Your task to perform on an android device: turn on priority inbox in the gmail app Image 0: 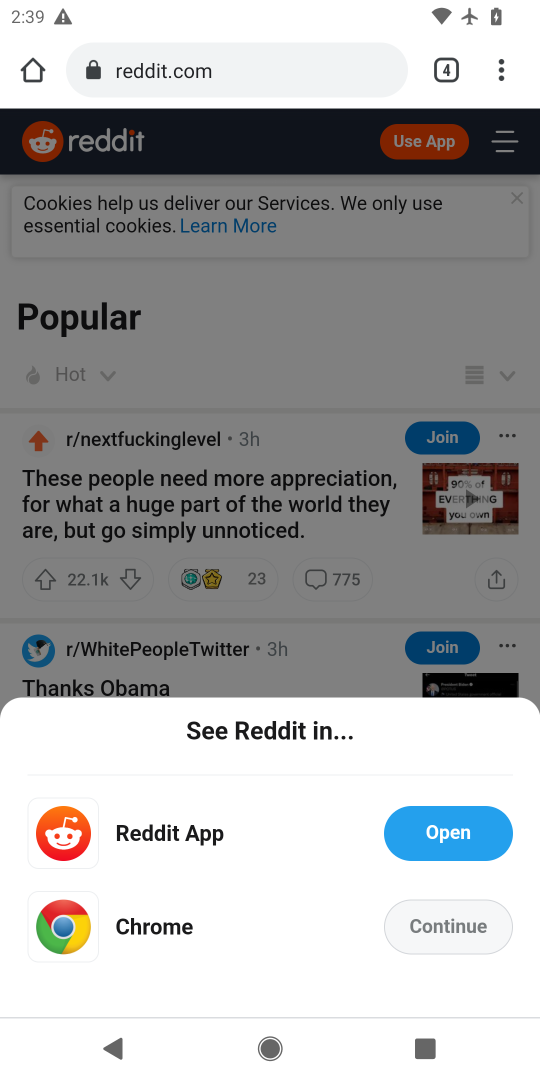
Step 0: press home button
Your task to perform on an android device: turn on priority inbox in the gmail app Image 1: 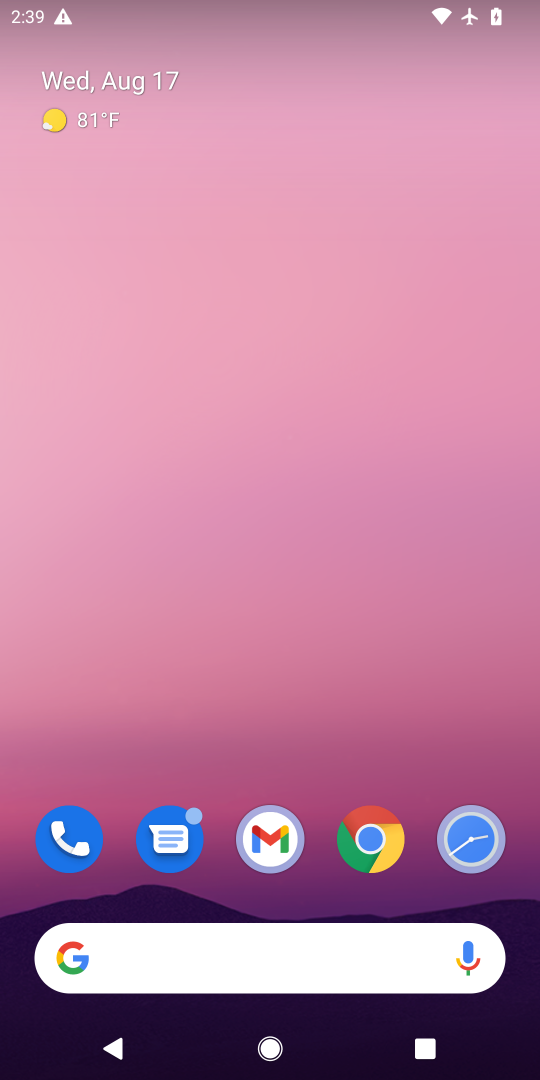
Step 1: drag from (323, 902) to (366, 67)
Your task to perform on an android device: turn on priority inbox in the gmail app Image 2: 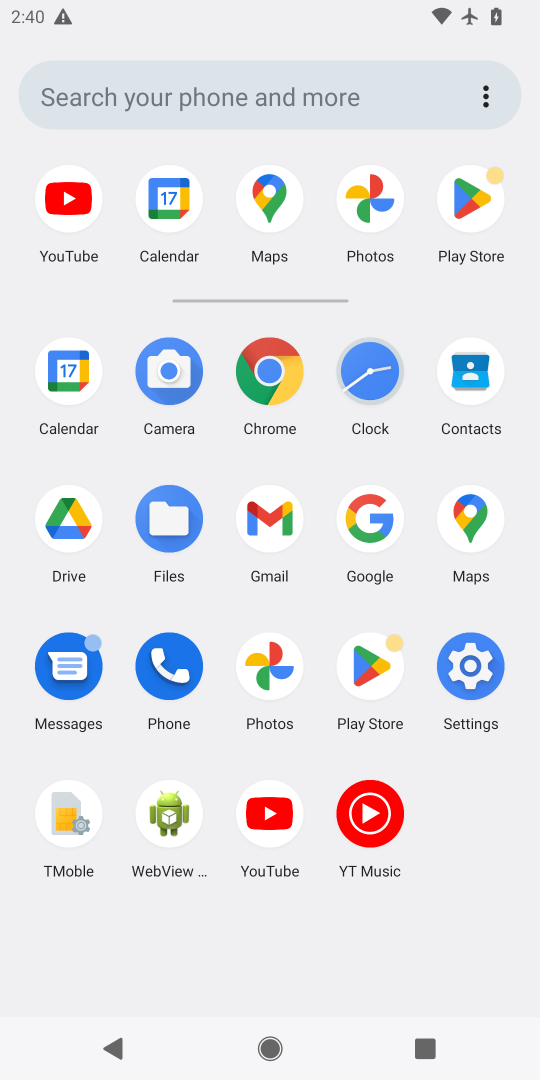
Step 2: click (267, 512)
Your task to perform on an android device: turn on priority inbox in the gmail app Image 3: 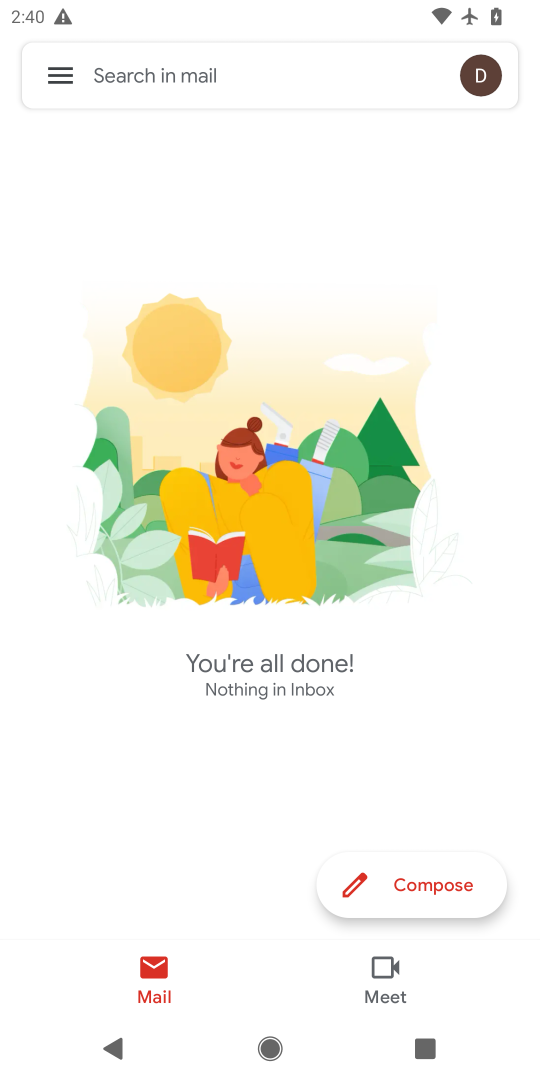
Step 3: click (59, 66)
Your task to perform on an android device: turn on priority inbox in the gmail app Image 4: 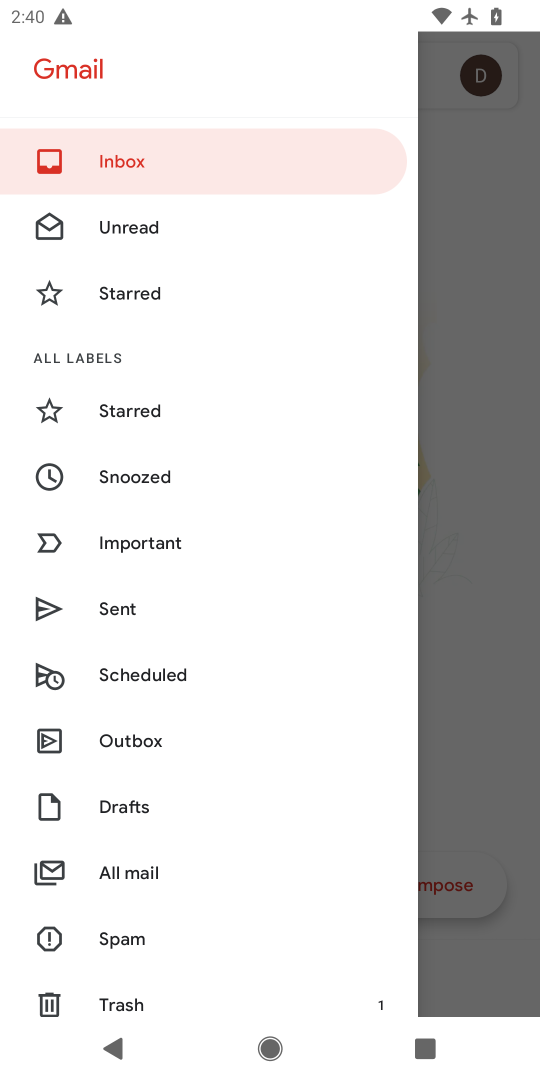
Step 4: drag from (120, 935) to (134, 313)
Your task to perform on an android device: turn on priority inbox in the gmail app Image 5: 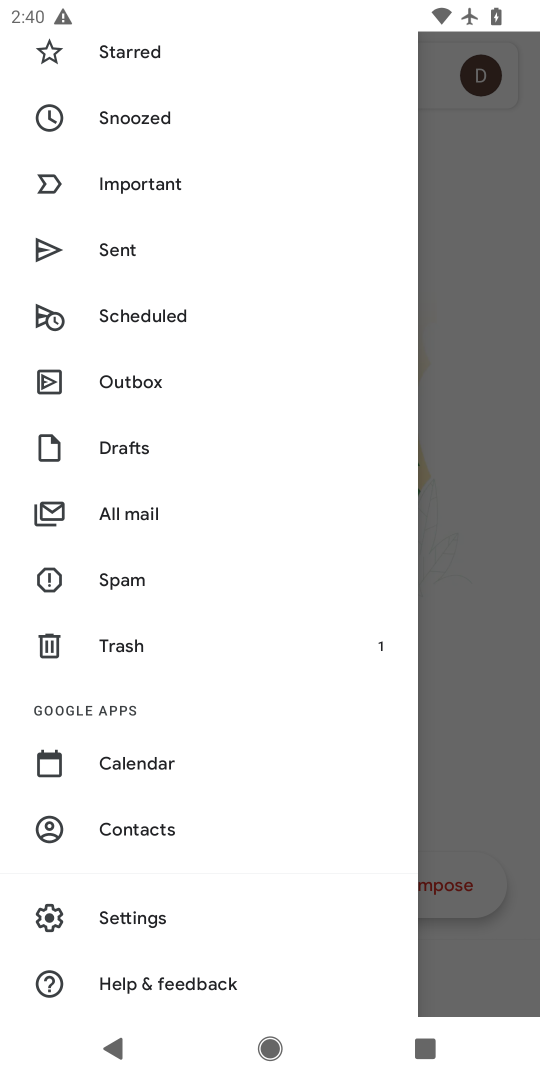
Step 5: click (145, 918)
Your task to perform on an android device: turn on priority inbox in the gmail app Image 6: 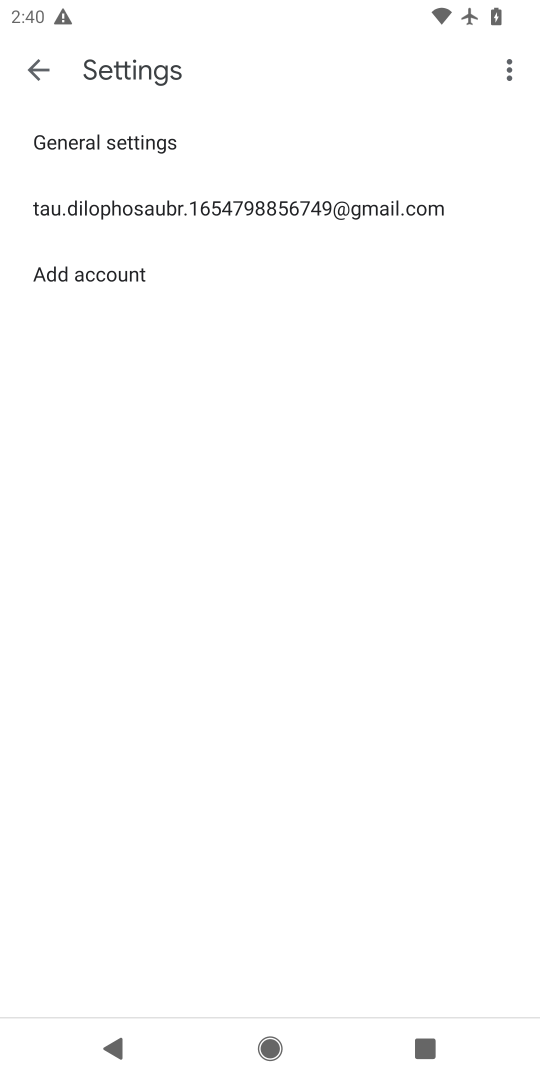
Step 6: click (151, 207)
Your task to perform on an android device: turn on priority inbox in the gmail app Image 7: 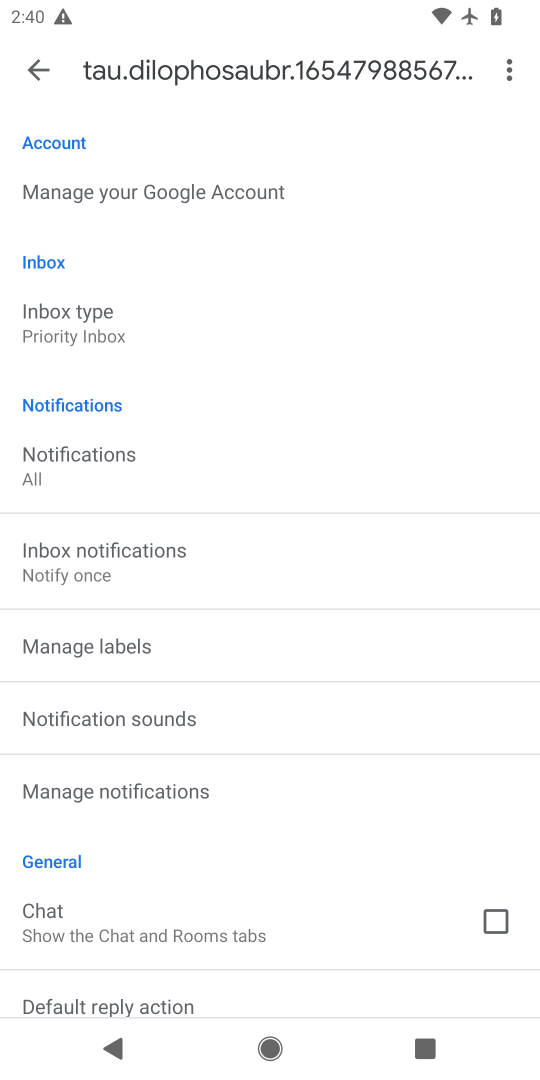
Step 7: task complete